Your task to perform on an android device: Do I have any events this weekend? Image 0: 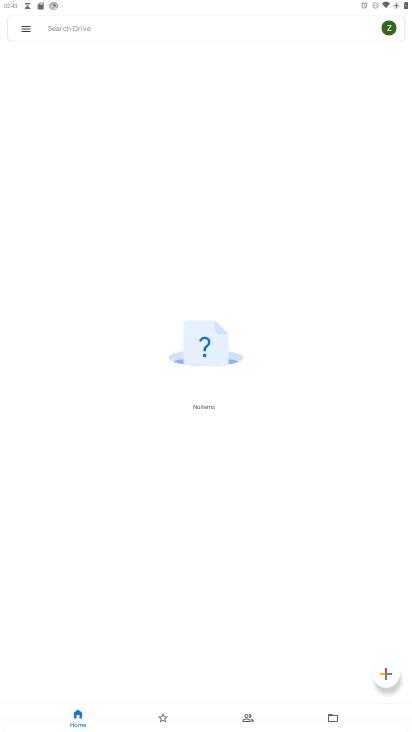
Step 0: press home button
Your task to perform on an android device: Do I have any events this weekend? Image 1: 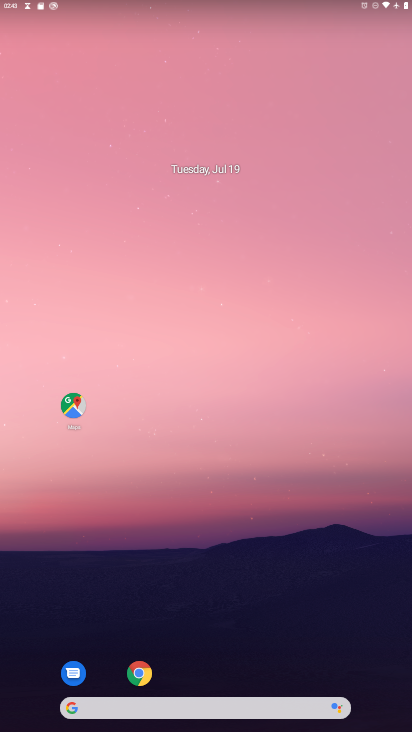
Step 1: drag from (164, 656) to (170, 455)
Your task to perform on an android device: Do I have any events this weekend? Image 2: 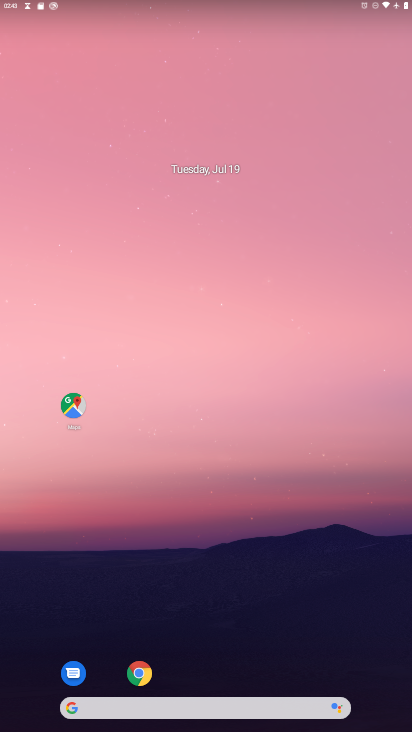
Step 2: drag from (207, 707) to (211, 197)
Your task to perform on an android device: Do I have any events this weekend? Image 3: 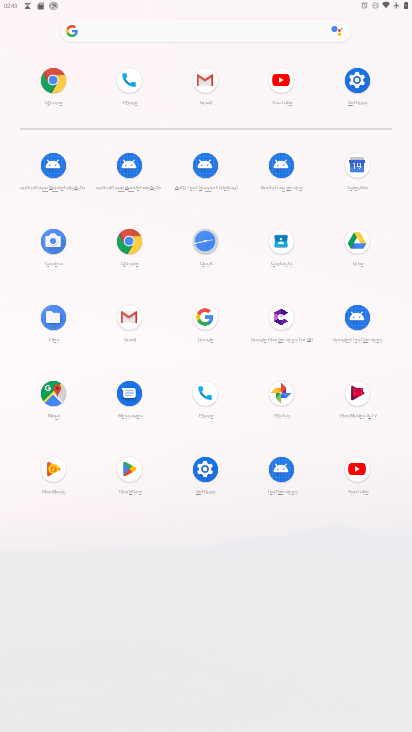
Step 3: click (351, 169)
Your task to perform on an android device: Do I have any events this weekend? Image 4: 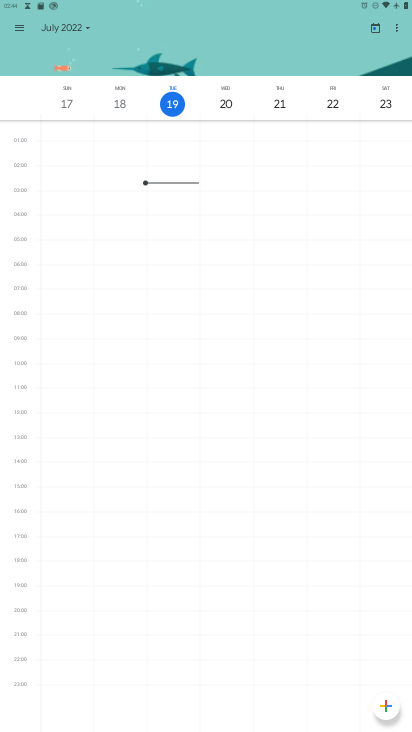
Step 4: task complete